Your task to perform on an android device: Open location settings Image 0: 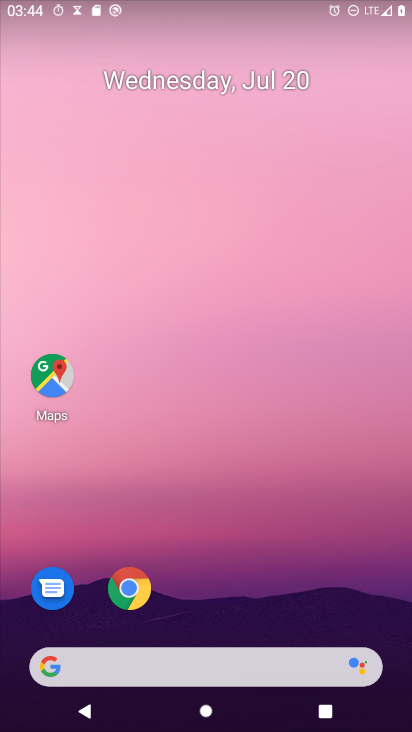
Step 0: drag from (216, 624) to (177, 193)
Your task to perform on an android device: Open location settings Image 1: 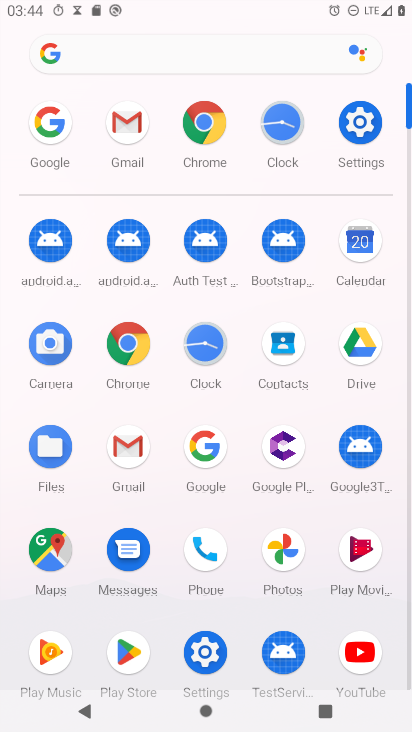
Step 1: click (373, 127)
Your task to perform on an android device: Open location settings Image 2: 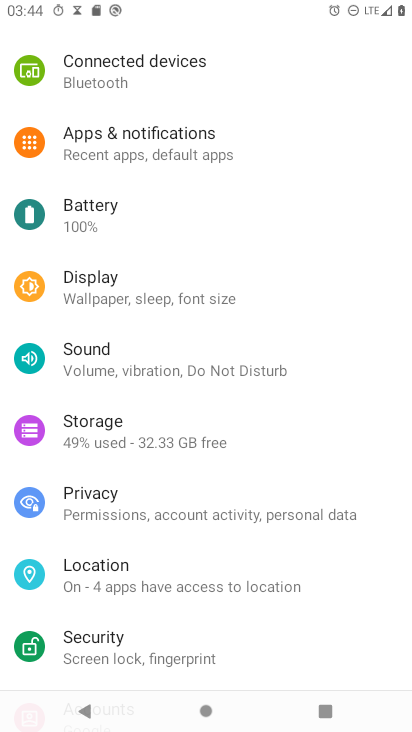
Step 2: click (82, 555)
Your task to perform on an android device: Open location settings Image 3: 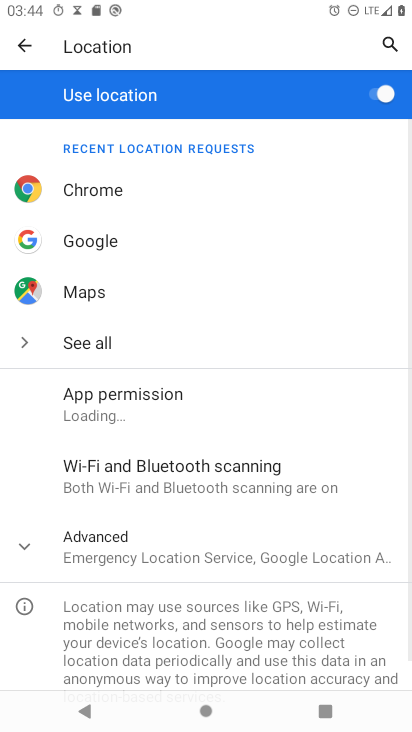
Step 3: click (82, 555)
Your task to perform on an android device: Open location settings Image 4: 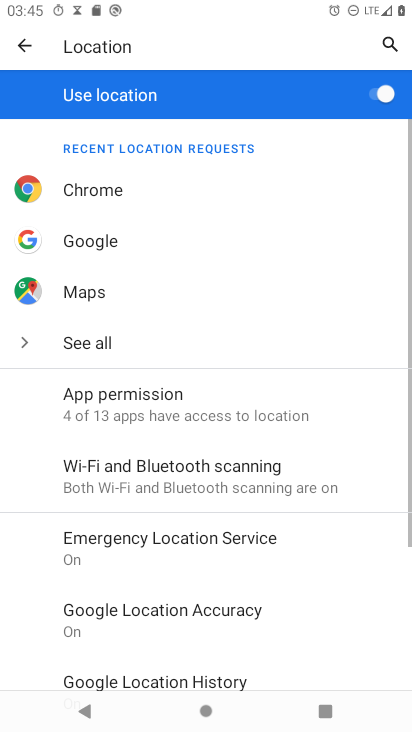
Step 4: task complete